Your task to perform on an android device: turn on data saver in the chrome app Image 0: 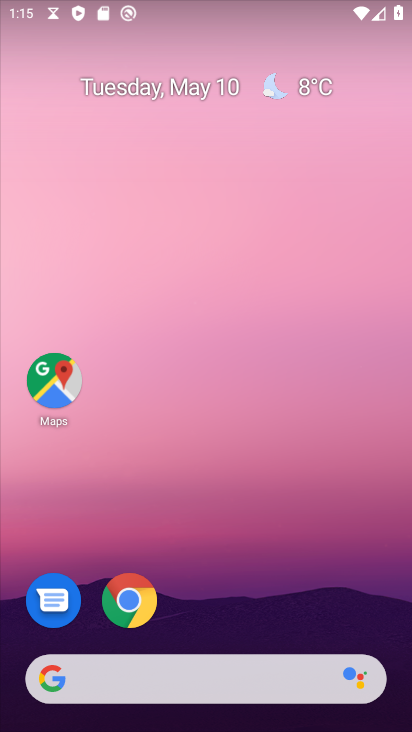
Step 0: click (125, 598)
Your task to perform on an android device: turn on data saver in the chrome app Image 1: 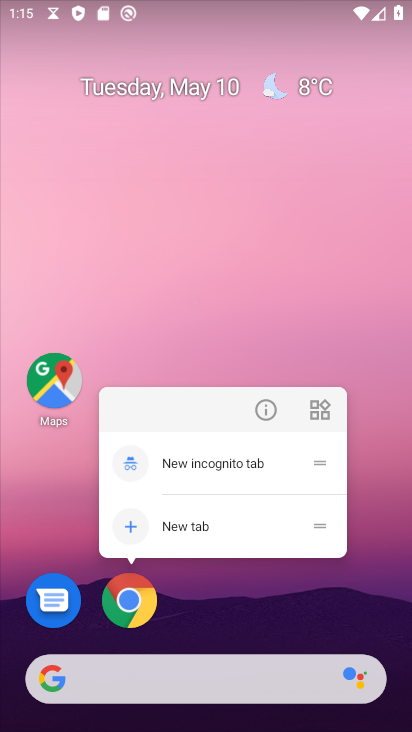
Step 1: click (124, 596)
Your task to perform on an android device: turn on data saver in the chrome app Image 2: 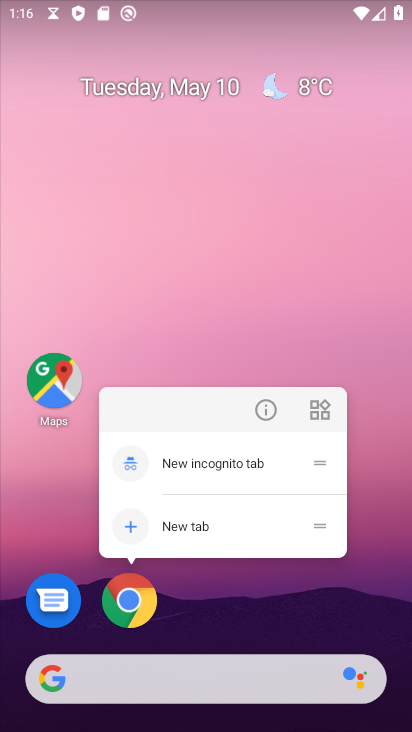
Step 2: click (123, 595)
Your task to perform on an android device: turn on data saver in the chrome app Image 3: 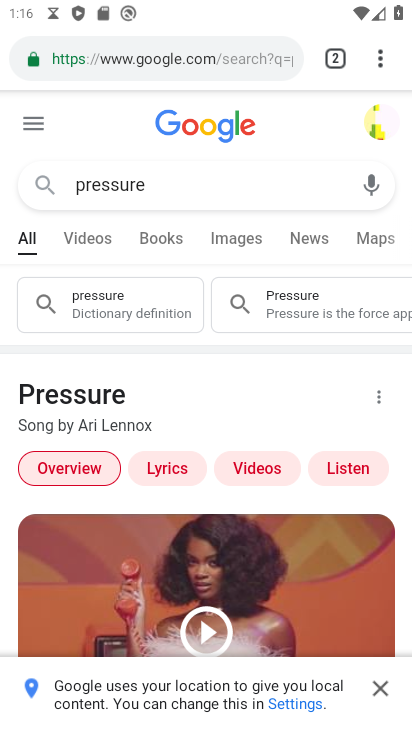
Step 3: task complete